Your task to perform on an android device: toggle airplane mode Image 0: 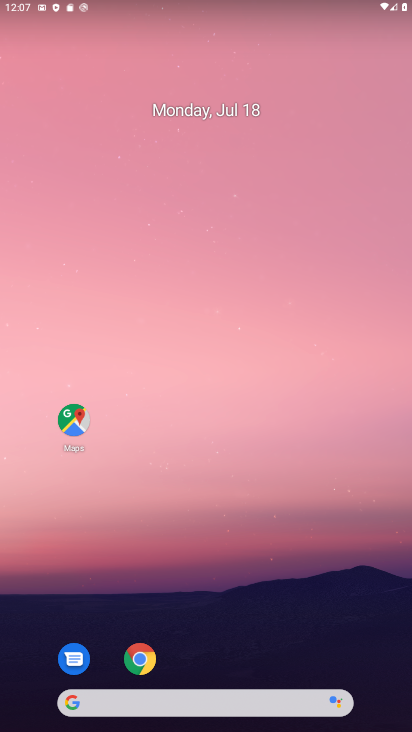
Step 0: drag from (191, 354) to (246, 35)
Your task to perform on an android device: toggle airplane mode Image 1: 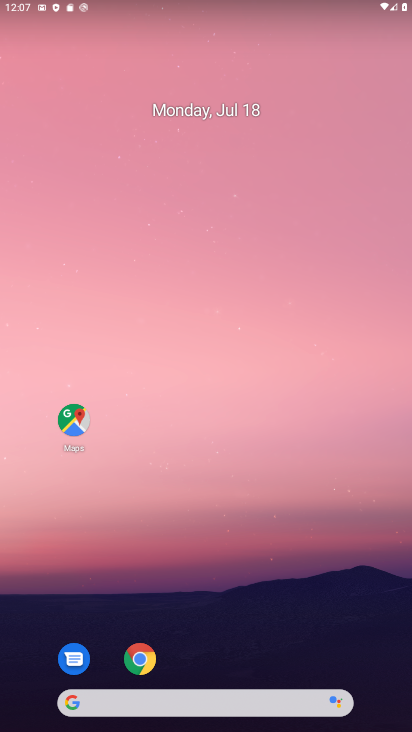
Step 1: drag from (238, 651) to (223, 111)
Your task to perform on an android device: toggle airplane mode Image 2: 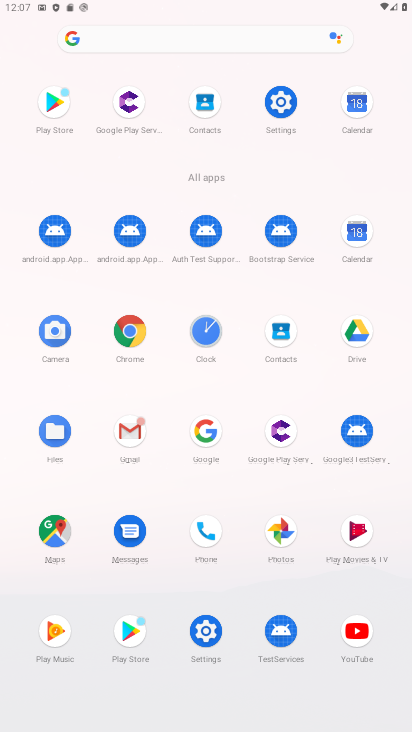
Step 2: click (211, 636)
Your task to perform on an android device: toggle airplane mode Image 3: 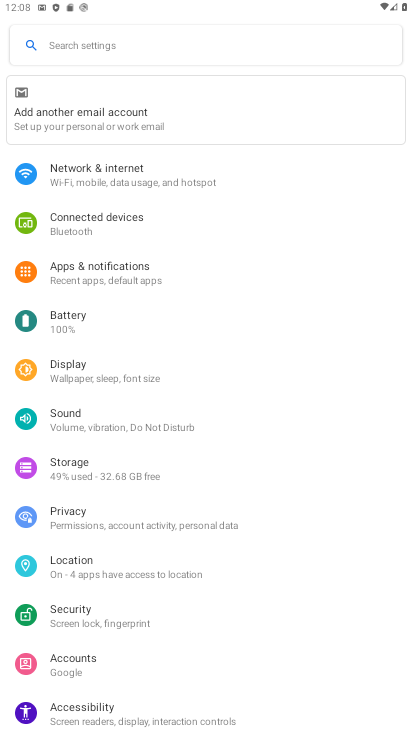
Step 3: click (97, 166)
Your task to perform on an android device: toggle airplane mode Image 4: 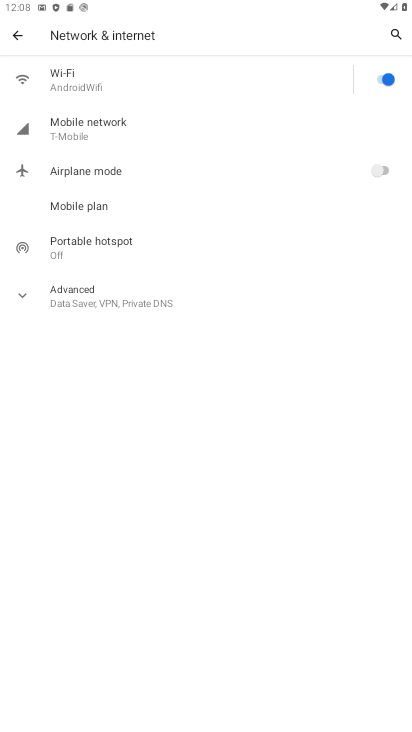
Step 4: click (398, 172)
Your task to perform on an android device: toggle airplane mode Image 5: 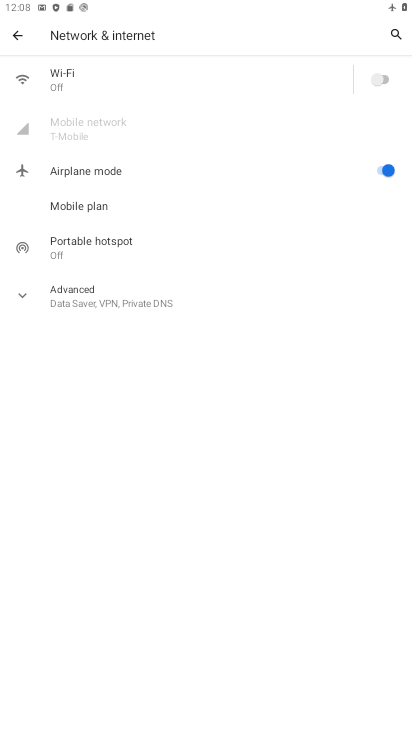
Step 5: task complete